Your task to perform on an android device: create a new album in the google photos Image 0: 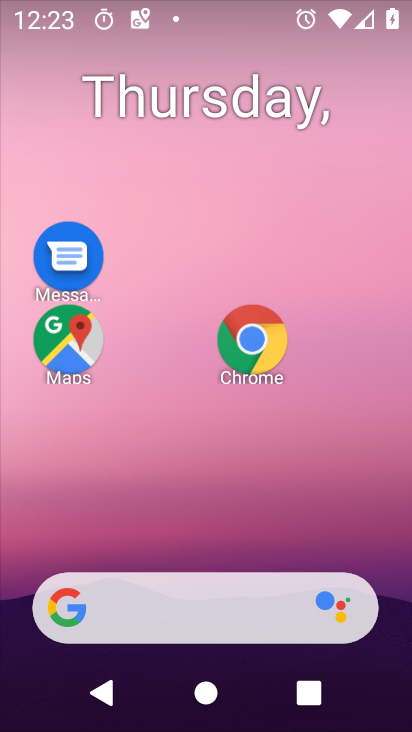
Step 0: drag from (196, 528) to (242, 25)
Your task to perform on an android device: create a new album in the google photos Image 1: 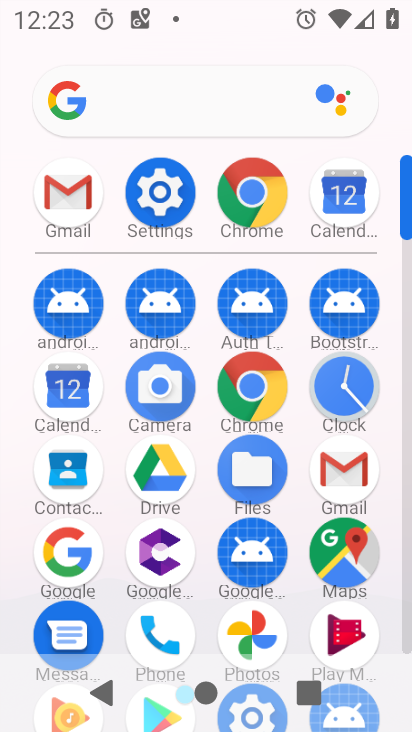
Step 1: click (259, 632)
Your task to perform on an android device: create a new album in the google photos Image 2: 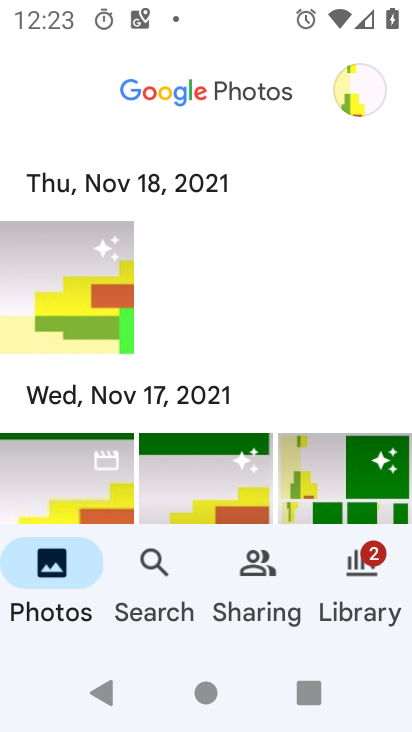
Step 2: click (174, 582)
Your task to perform on an android device: create a new album in the google photos Image 3: 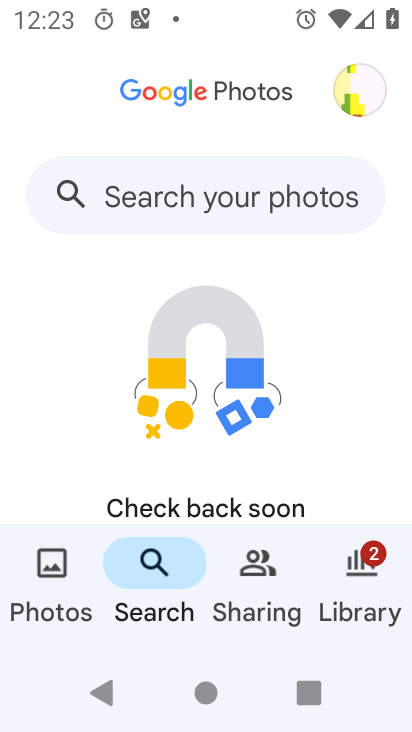
Step 3: click (260, 594)
Your task to perform on an android device: create a new album in the google photos Image 4: 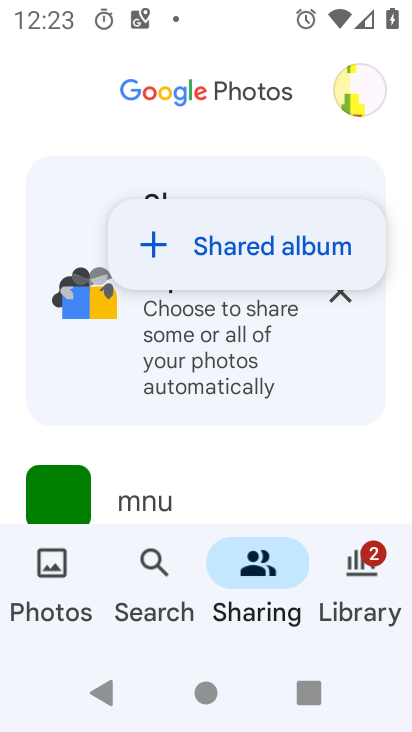
Step 4: click (351, 587)
Your task to perform on an android device: create a new album in the google photos Image 5: 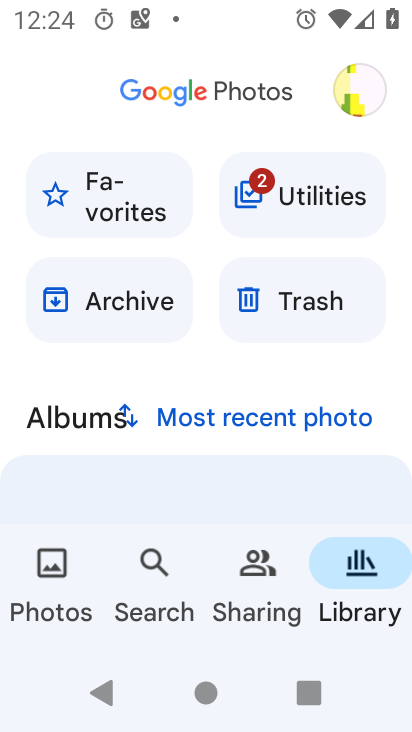
Step 5: drag from (215, 379) to (226, 50)
Your task to perform on an android device: create a new album in the google photos Image 6: 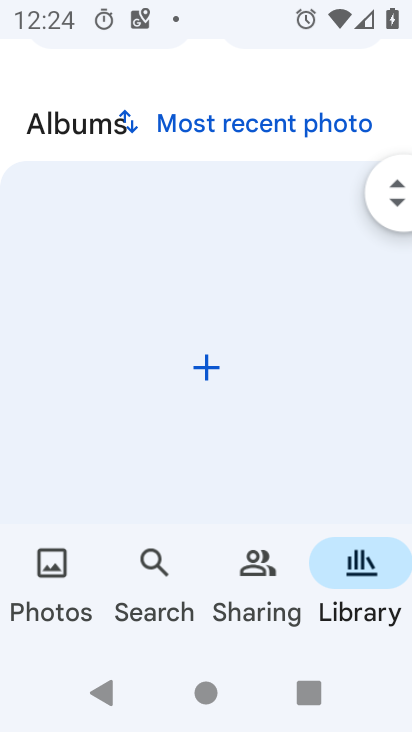
Step 6: click (204, 376)
Your task to perform on an android device: create a new album in the google photos Image 7: 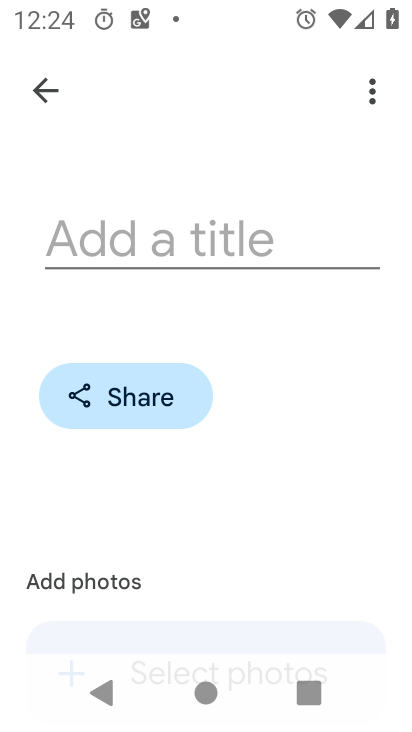
Step 7: click (151, 216)
Your task to perform on an android device: create a new album in the google photos Image 8: 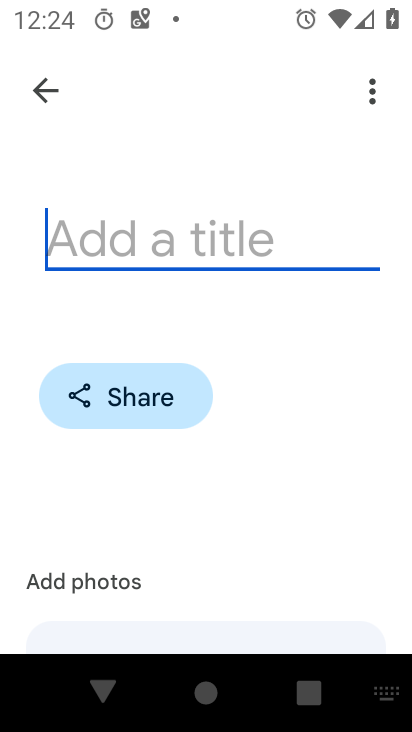
Step 8: type "jyyy"
Your task to perform on an android device: create a new album in the google photos Image 9: 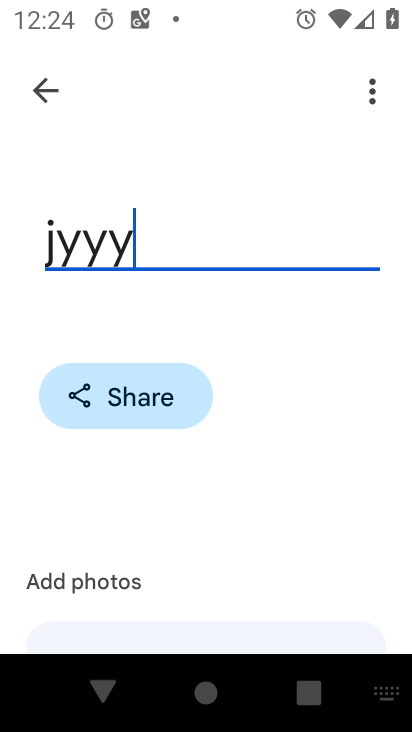
Step 9: drag from (196, 480) to (244, 107)
Your task to perform on an android device: create a new album in the google photos Image 10: 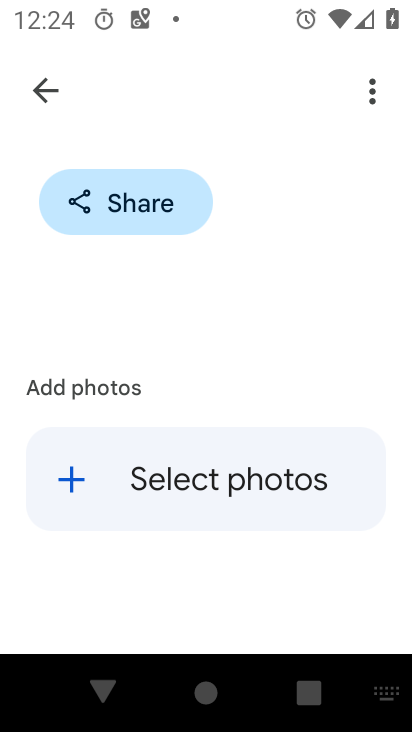
Step 10: click (71, 488)
Your task to perform on an android device: create a new album in the google photos Image 11: 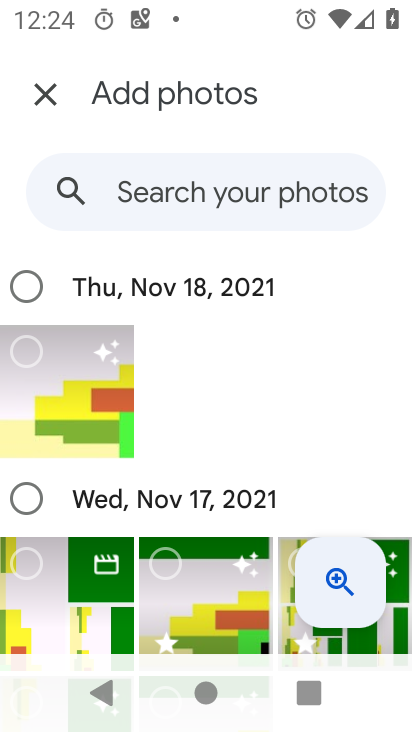
Step 11: click (25, 362)
Your task to perform on an android device: create a new album in the google photos Image 12: 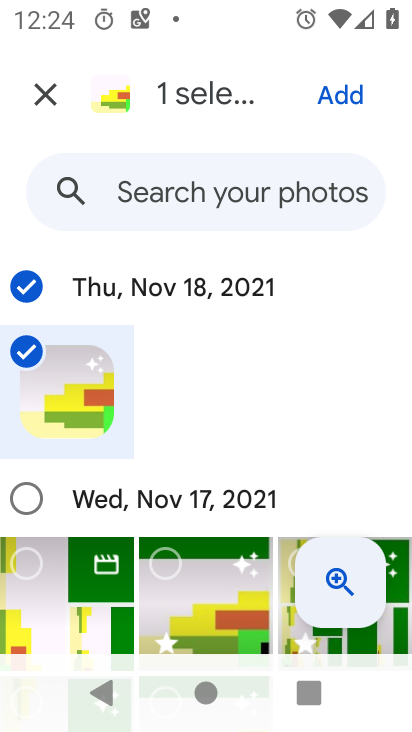
Step 12: click (342, 80)
Your task to perform on an android device: create a new album in the google photos Image 13: 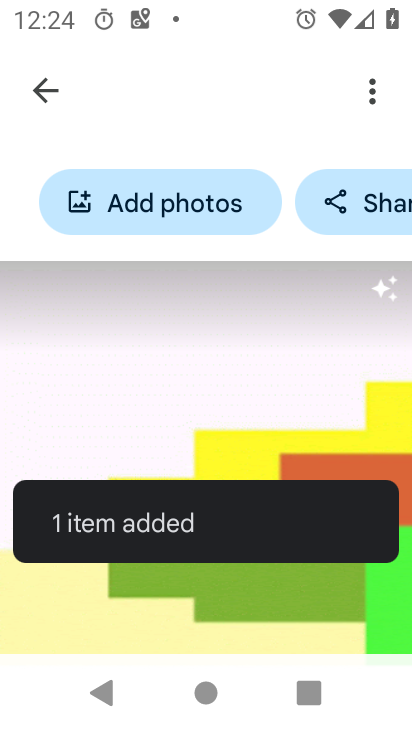
Step 13: task complete